Your task to perform on an android device: empty trash in the gmail app Image 0: 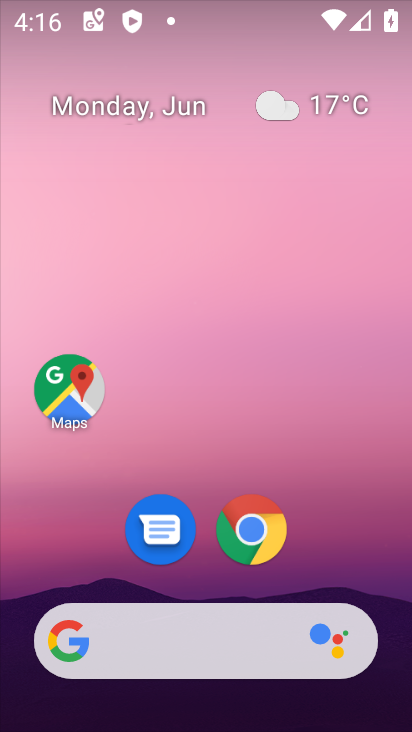
Step 0: drag from (340, 551) to (272, 11)
Your task to perform on an android device: empty trash in the gmail app Image 1: 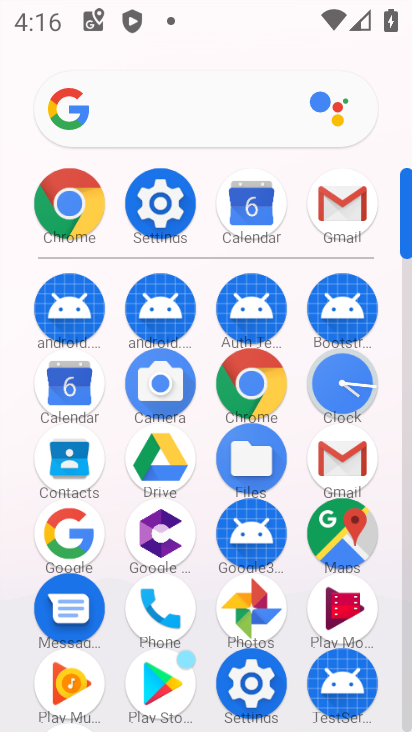
Step 1: click (337, 203)
Your task to perform on an android device: empty trash in the gmail app Image 2: 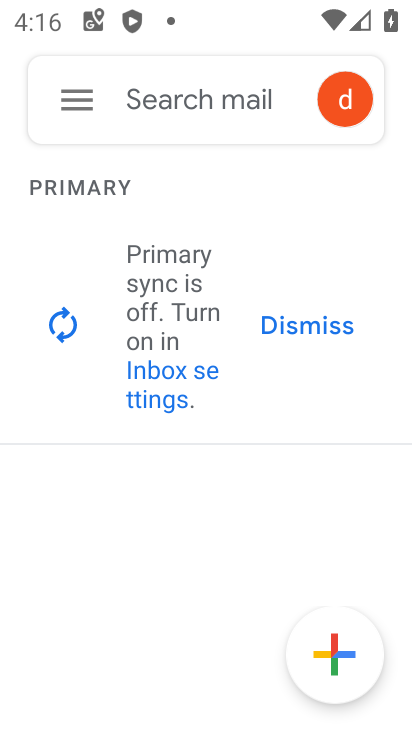
Step 2: click (79, 107)
Your task to perform on an android device: empty trash in the gmail app Image 3: 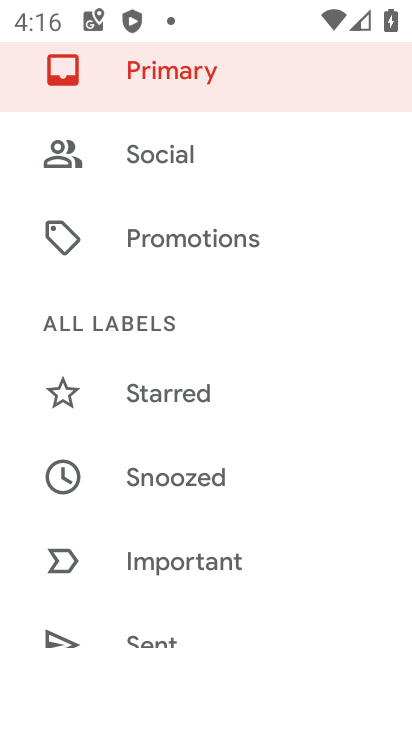
Step 3: drag from (180, 543) to (236, 162)
Your task to perform on an android device: empty trash in the gmail app Image 4: 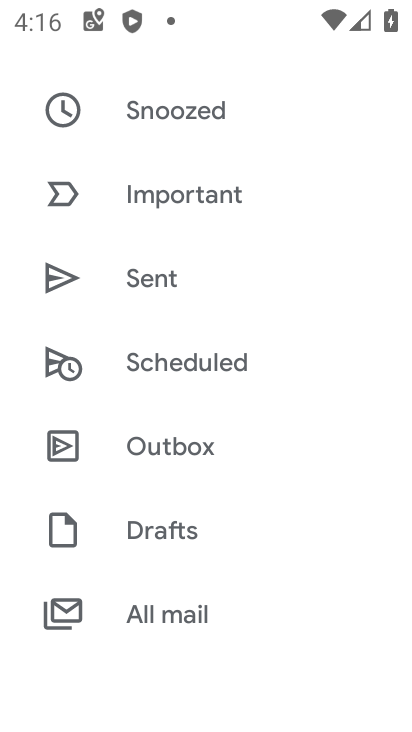
Step 4: drag from (200, 556) to (264, 301)
Your task to perform on an android device: empty trash in the gmail app Image 5: 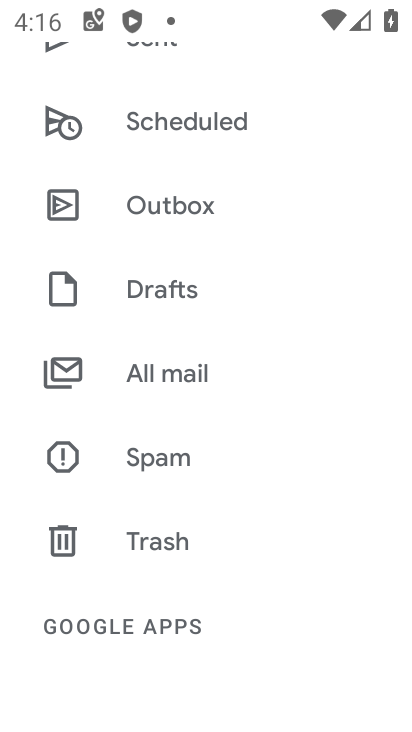
Step 5: click (182, 545)
Your task to perform on an android device: empty trash in the gmail app Image 6: 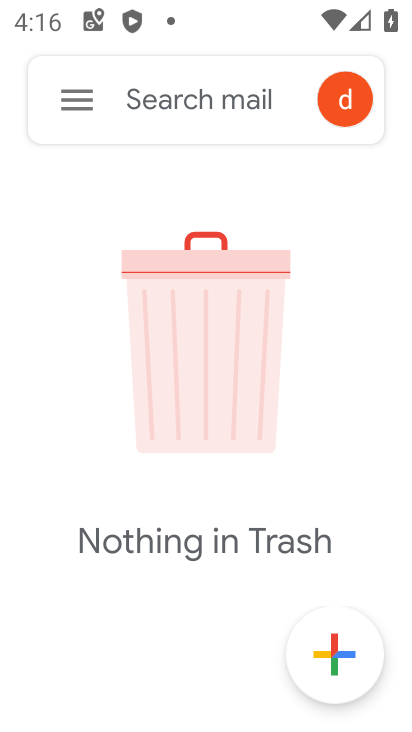
Step 6: task complete